Your task to perform on an android device: toggle data saver in the chrome app Image 0: 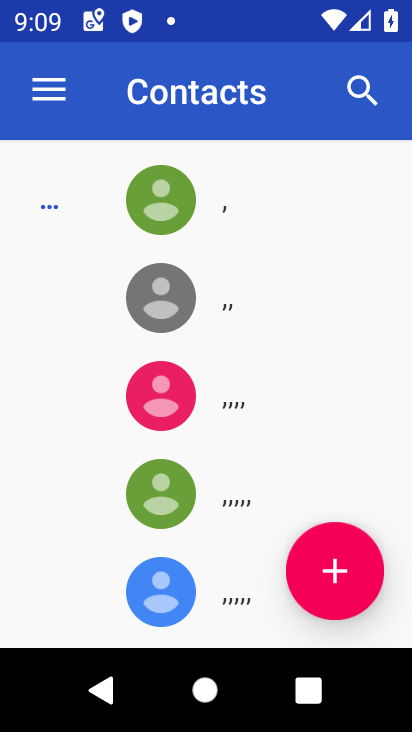
Step 0: press home button
Your task to perform on an android device: toggle data saver in the chrome app Image 1: 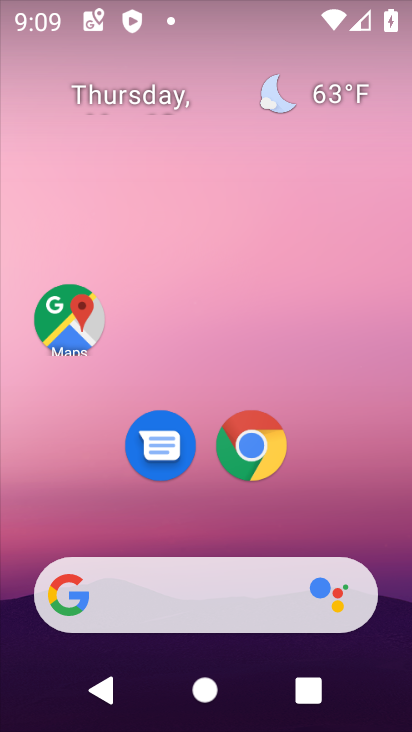
Step 1: click (263, 439)
Your task to perform on an android device: toggle data saver in the chrome app Image 2: 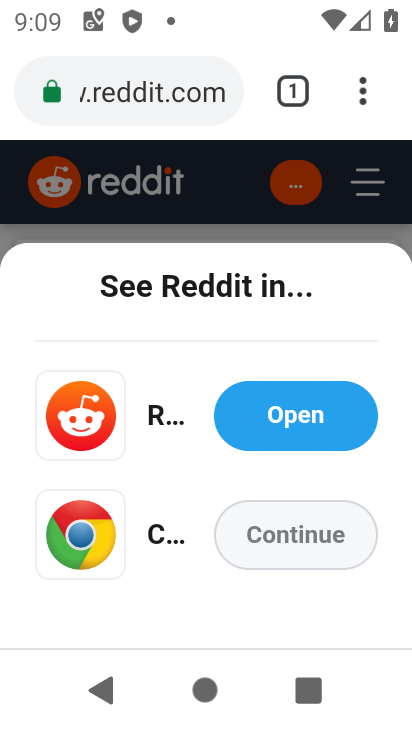
Step 2: click (357, 97)
Your task to perform on an android device: toggle data saver in the chrome app Image 3: 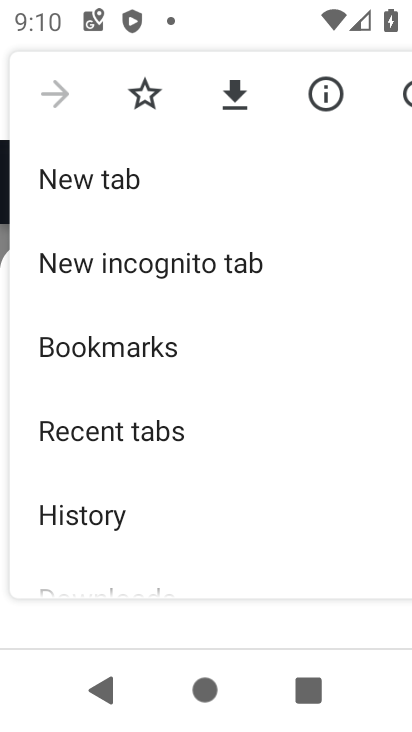
Step 3: drag from (106, 504) to (159, 173)
Your task to perform on an android device: toggle data saver in the chrome app Image 4: 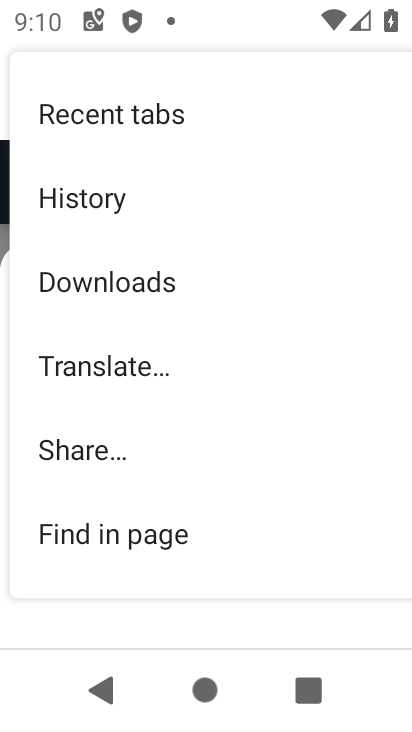
Step 4: drag from (107, 490) to (145, 212)
Your task to perform on an android device: toggle data saver in the chrome app Image 5: 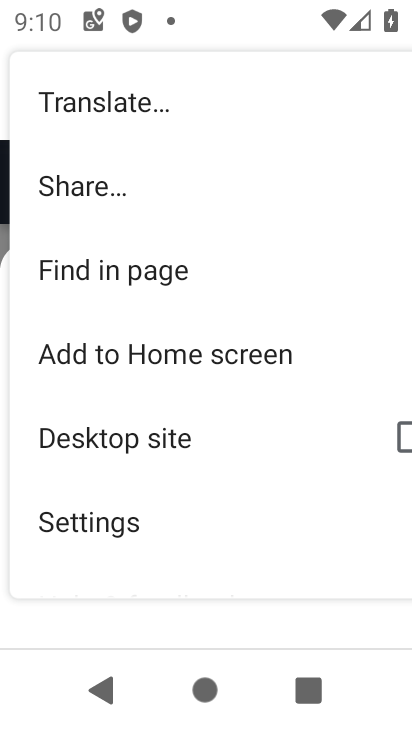
Step 5: click (107, 521)
Your task to perform on an android device: toggle data saver in the chrome app Image 6: 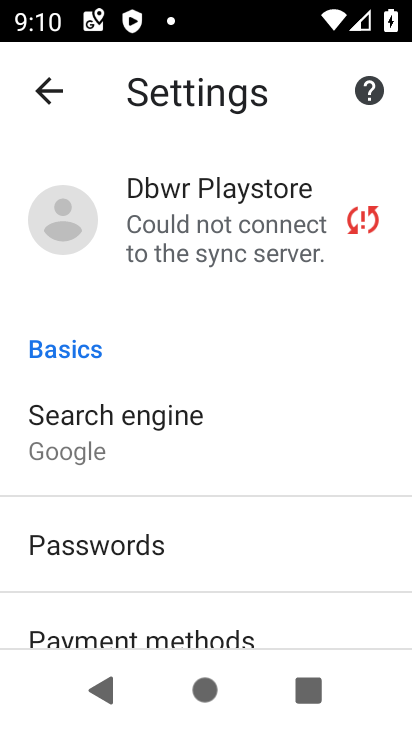
Step 6: drag from (161, 554) to (217, 103)
Your task to perform on an android device: toggle data saver in the chrome app Image 7: 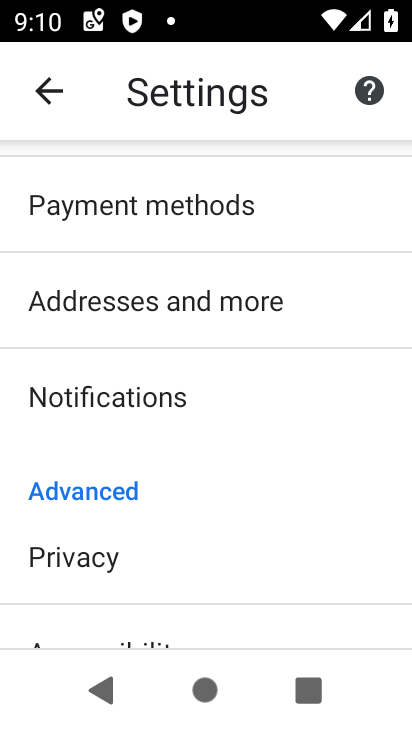
Step 7: drag from (113, 514) to (222, 78)
Your task to perform on an android device: toggle data saver in the chrome app Image 8: 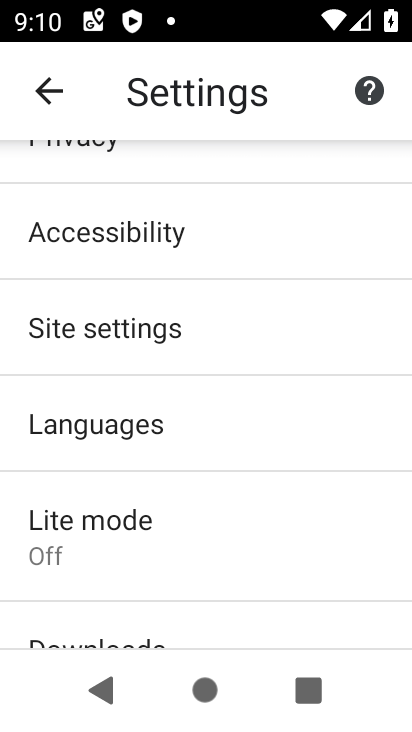
Step 8: click (148, 541)
Your task to perform on an android device: toggle data saver in the chrome app Image 9: 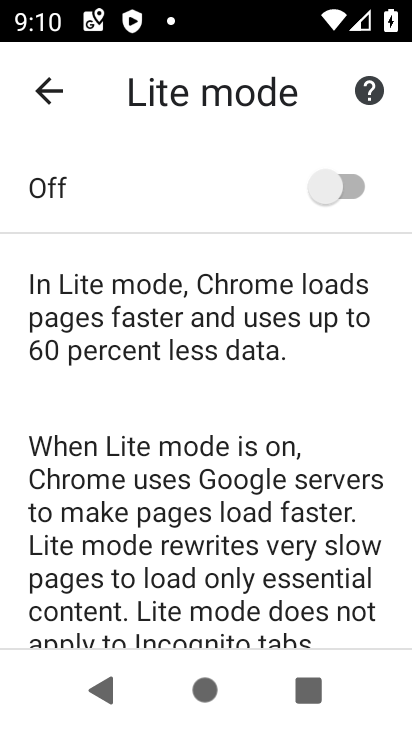
Step 9: click (338, 194)
Your task to perform on an android device: toggle data saver in the chrome app Image 10: 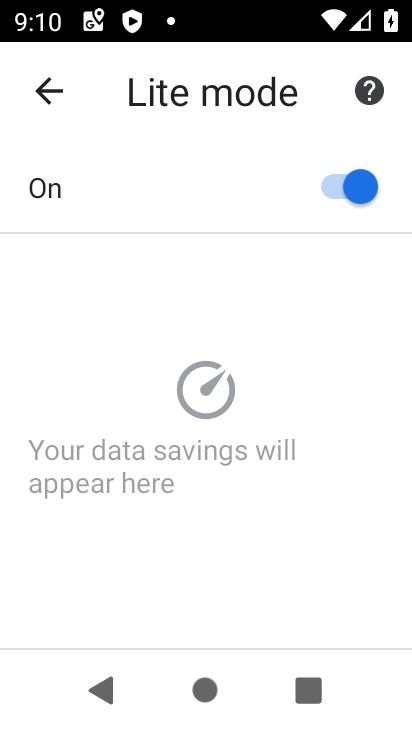
Step 10: task complete